Your task to perform on an android device: change text size in settings app Image 0: 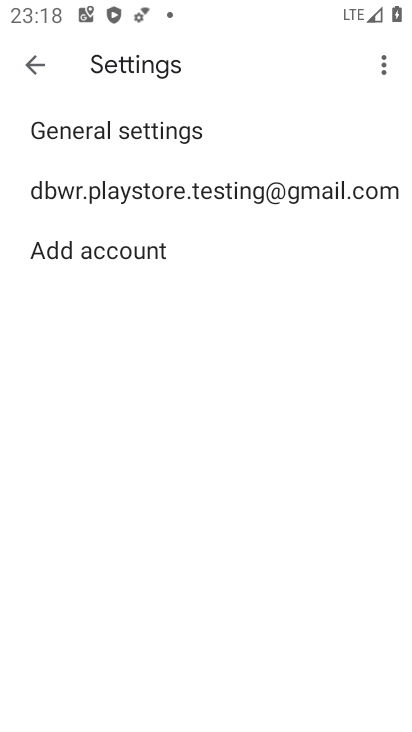
Step 0: click (39, 59)
Your task to perform on an android device: change text size in settings app Image 1: 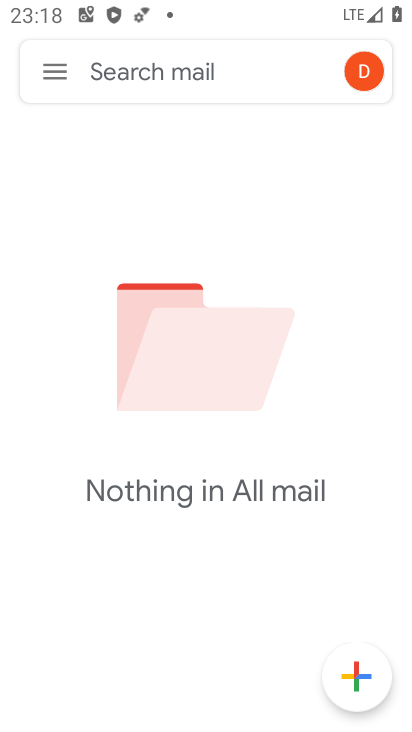
Step 1: press back button
Your task to perform on an android device: change text size in settings app Image 2: 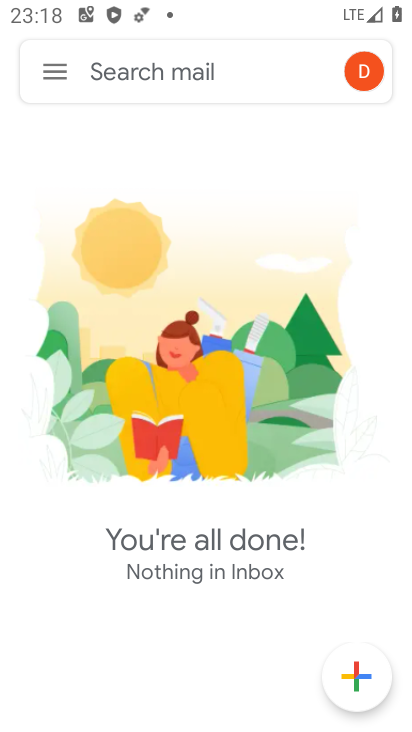
Step 2: press home button
Your task to perform on an android device: change text size in settings app Image 3: 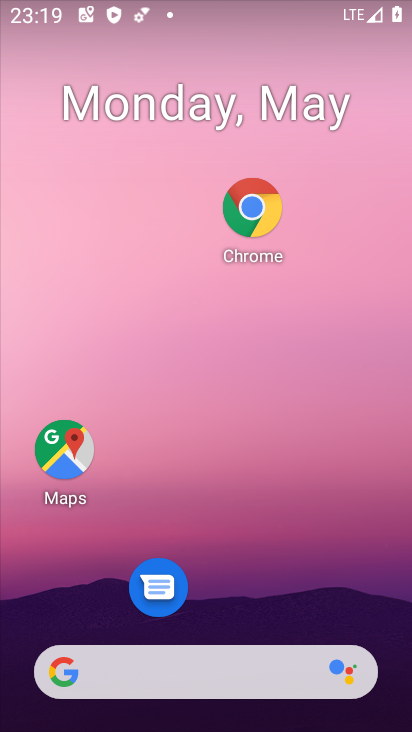
Step 3: drag from (207, 709) to (164, 2)
Your task to perform on an android device: change text size in settings app Image 4: 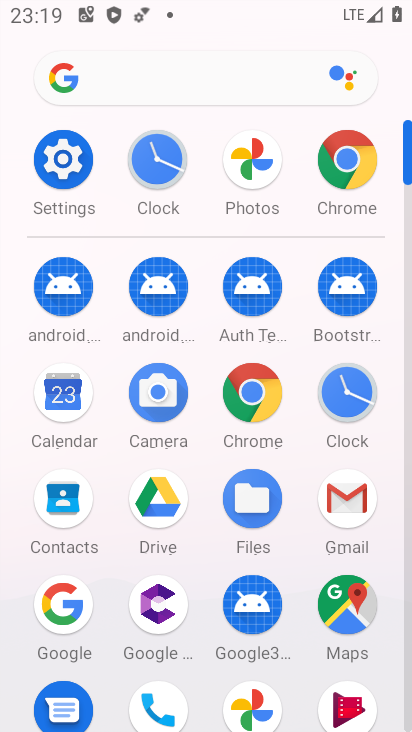
Step 4: click (61, 162)
Your task to perform on an android device: change text size in settings app Image 5: 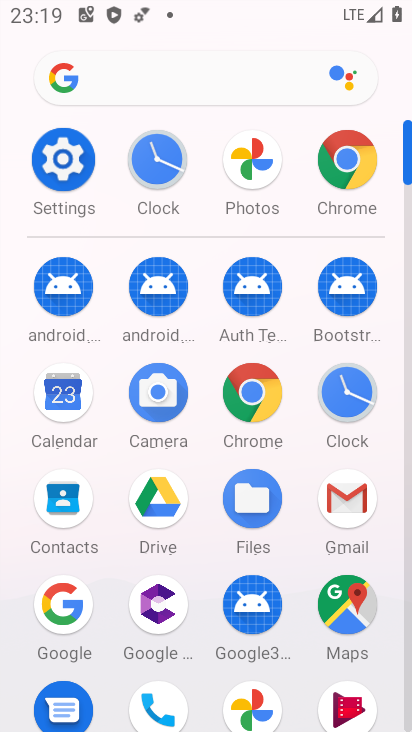
Step 5: click (83, 153)
Your task to perform on an android device: change text size in settings app Image 6: 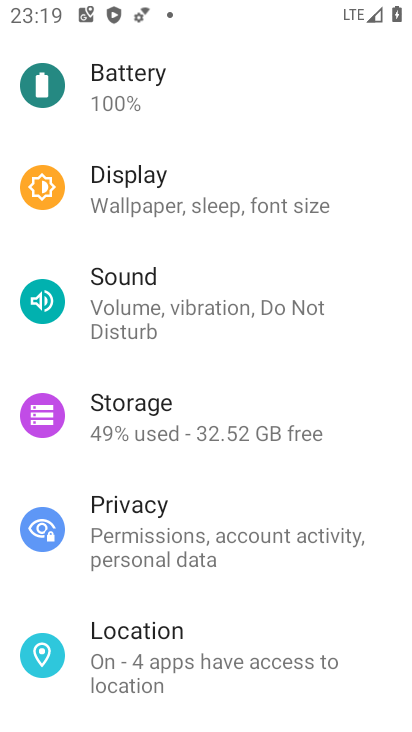
Step 6: drag from (191, 539) to (157, 237)
Your task to perform on an android device: change text size in settings app Image 7: 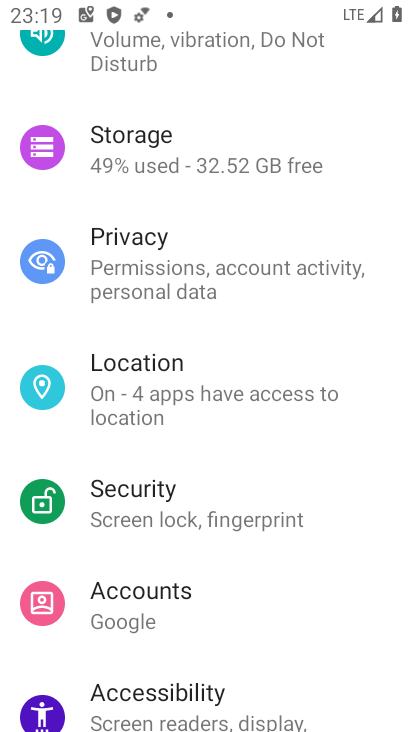
Step 7: drag from (186, 519) to (186, 140)
Your task to perform on an android device: change text size in settings app Image 8: 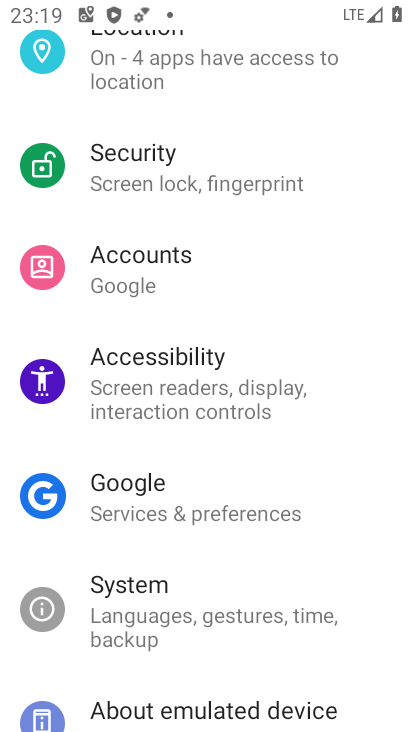
Step 8: drag from (138, 454) to (189, 122)
Your task to perform on an android device: change text size in settings app Image 9: 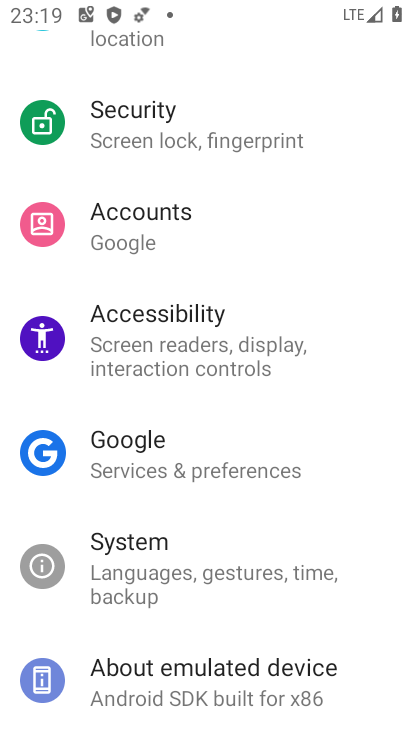
Step 9: drag from (164, 577) to (315, 34)
Your task to perform on an android device: change text size in settings app Image 10: 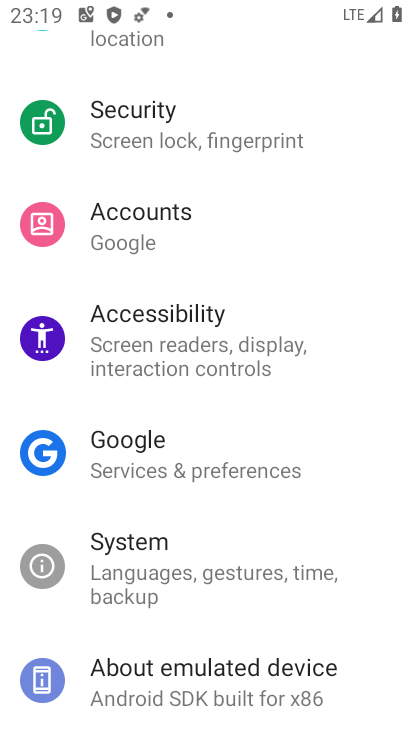
Step 10: drag from (130, 135) to (202, 655)
Your task to perform on an android device: change text size in settings app Image 11: 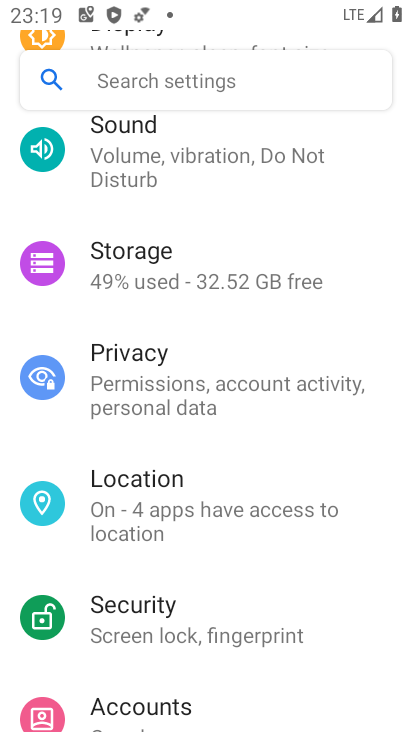
Step 11: drag from (202, 283) to (233, 715)
Your task to perform on an android device: change text size in settings app Image 12: 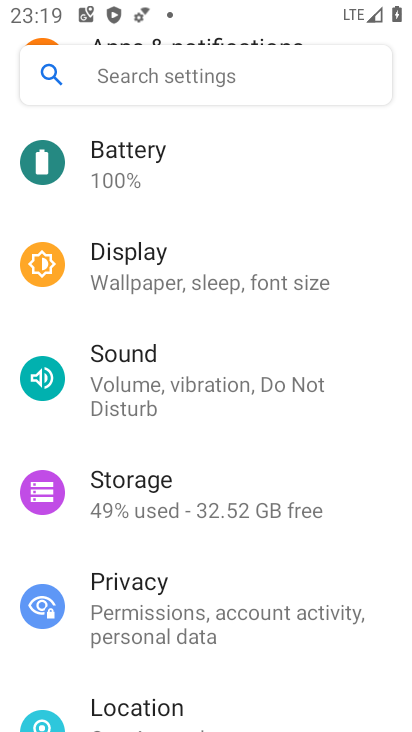
Step 12: drag from (190, 245) to (183, 684)
Your task to perform on an android device: change text size in settings app Image 13: 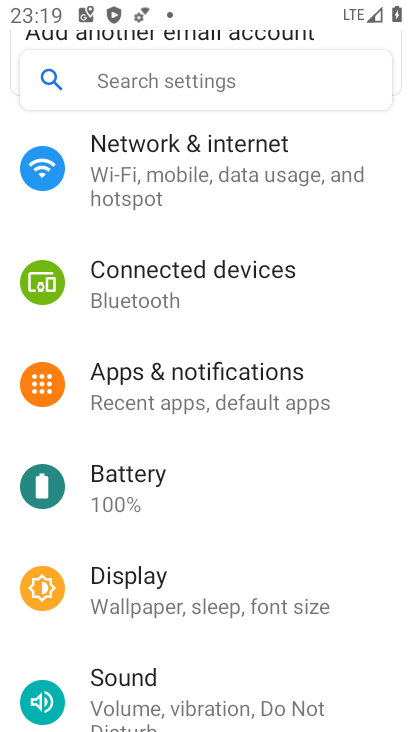
Step 13: drag from (156, 242) to (185, 724)
Your task to perform on an android device: change text size in settings app Image 14: 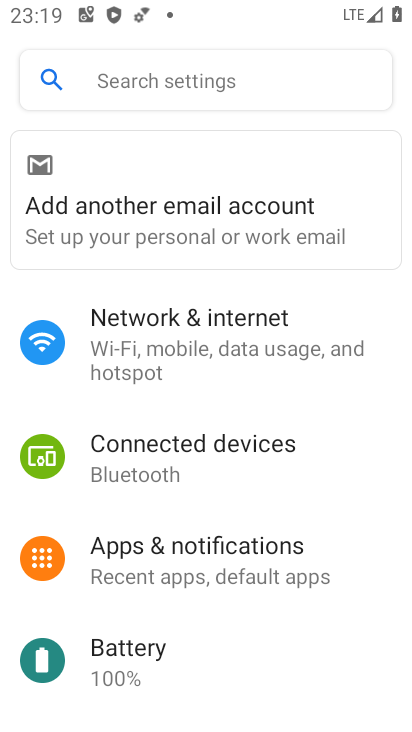
Step 14: drag from (140, 508) to (139, 183)
Your task to perform on an android device: change text size in settings app Image 15: 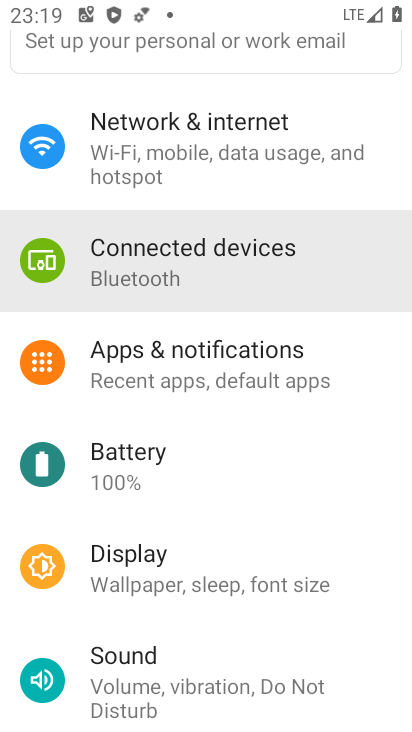
Step 15: drag from (175, 505) to (175, 191)
Your task to perform on an android device: change text size in settings app Image 16: 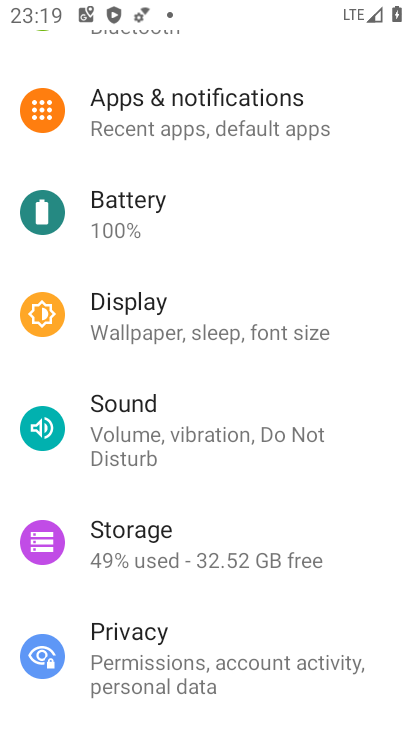
Step 16: drag from (184, 461) to (200, 249)
Your task to perform on an android device: change text size in settings app Image 17: 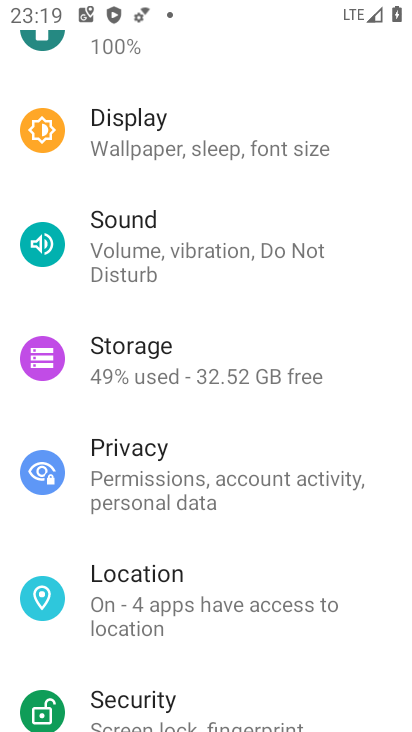
Step 17: click (132, 138)
Your task to perform on an android device: change text size in settings app Image 18: 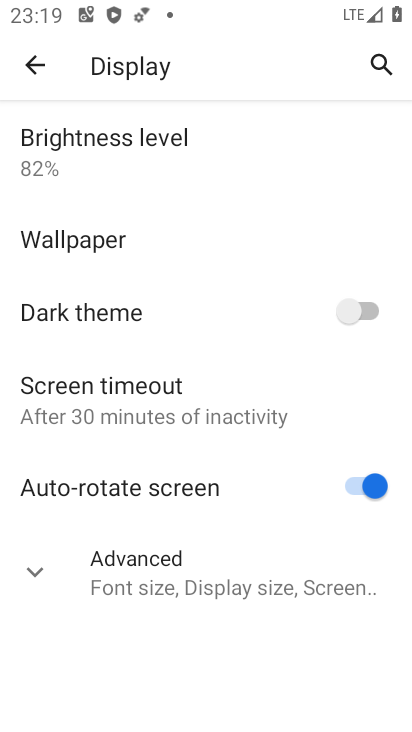
Step 18: click (150, 571)
Your task to perform on an android device: change text size in settings app Image 19: 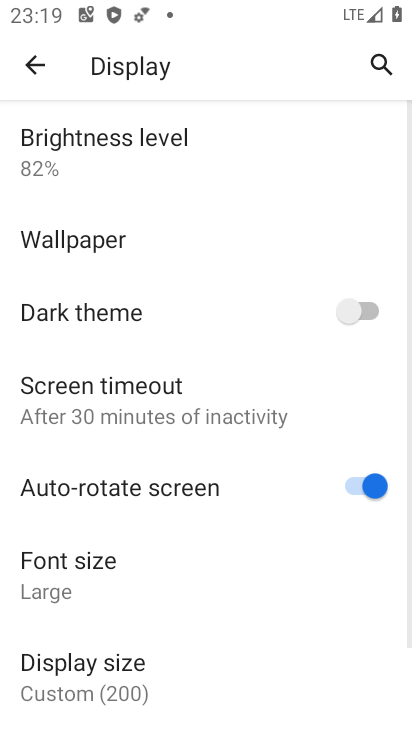
Step 19: click (26, 564)
Your task to perform on an android device: change text size in settings app Image 20: 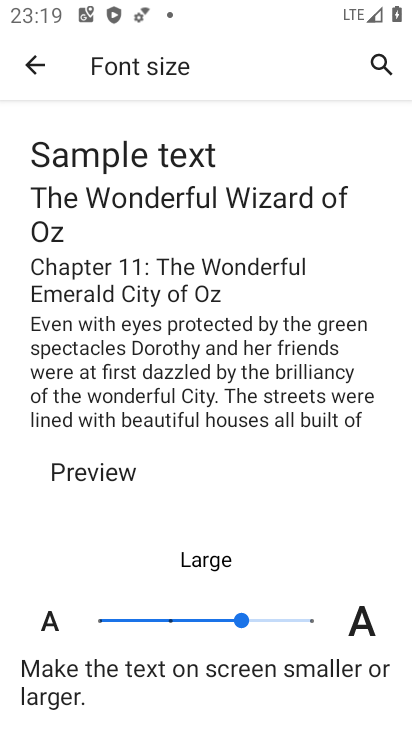
Step 20: click (167, 620)
Your task to perform on an android device: change text size in settings app Image 21: 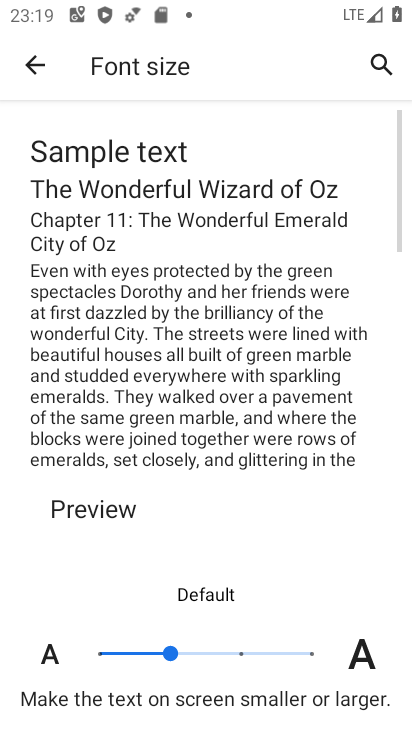
Step 21: task complete